Your task to perform on an android device: Go to internet settings Image 0: 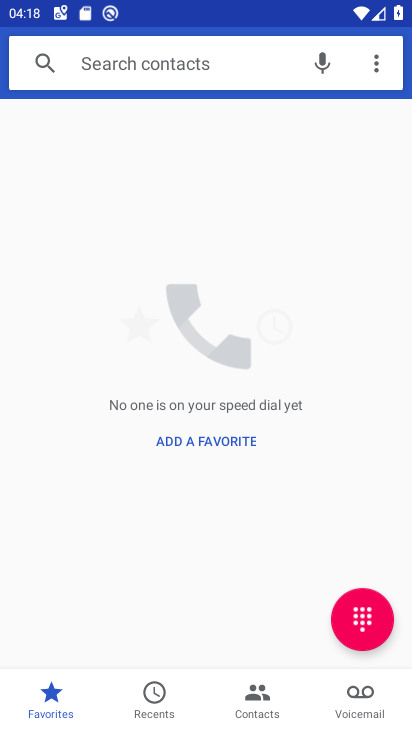
Step 0: press home button
Your task to perform on an android device: Go to internet settings Image 1: 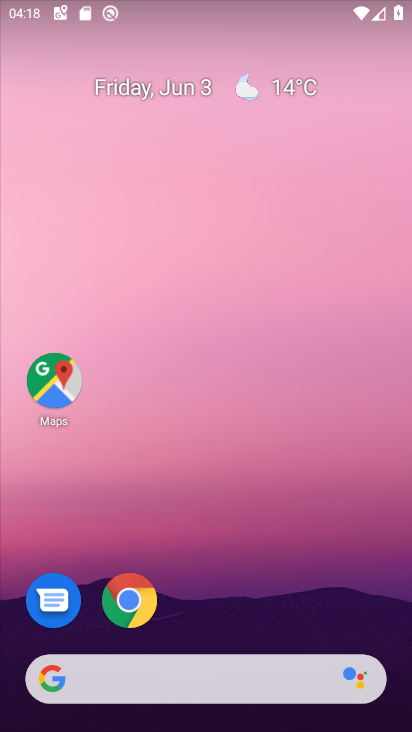
Step 1: drag from (267, 568) to (230, 174)
Your task to perform on an android device: Go to internet settings Image 2: 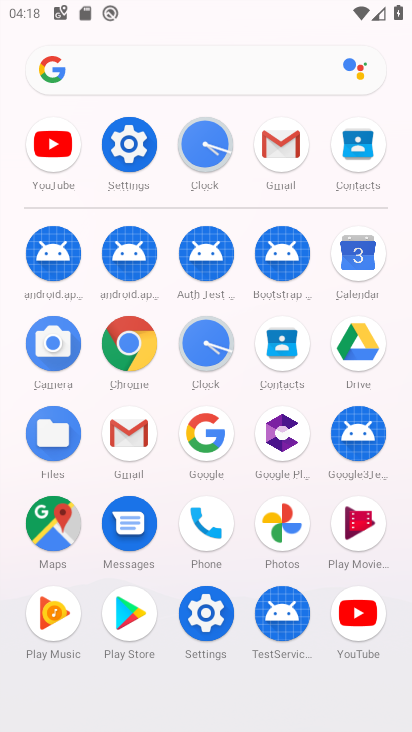
Step 2: click (125, 139)
Your task to perform on an android device: Go to internet settings Image 3: 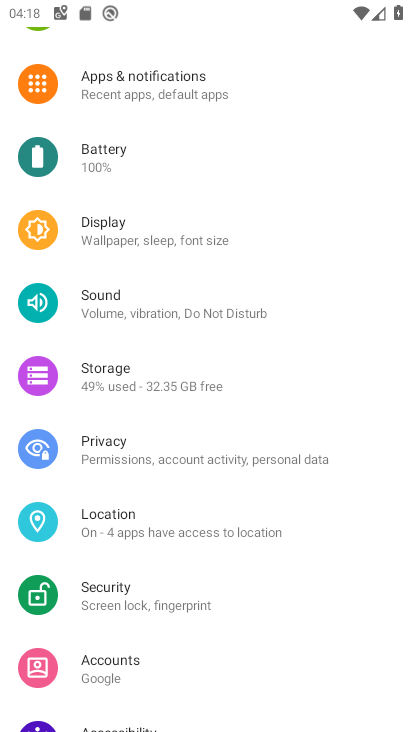
Step 3: drag from (177, 119) to (187, 444)
Your task to perform on an android device: Go to internet settings Image 4: 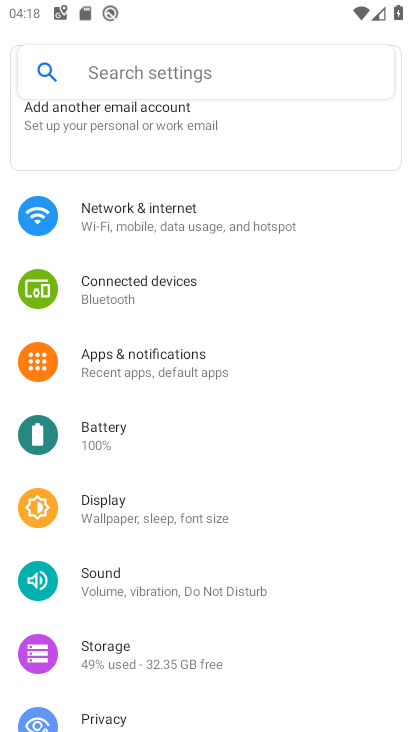
Step 4: click (165, 209)
Your task to perform on an android device: Go to internet settings Image 5: 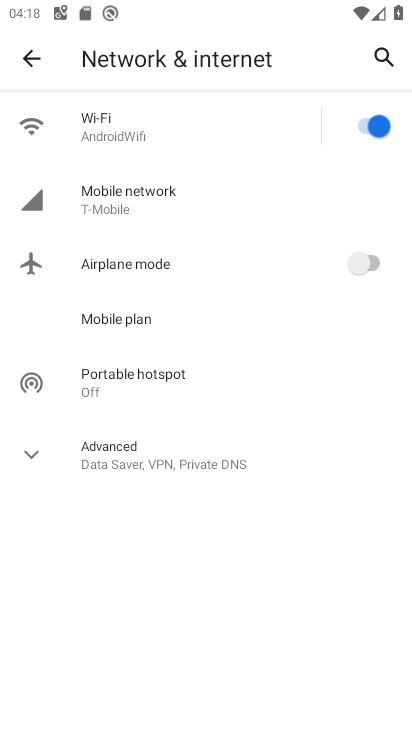
Step 5: task complete